Your task to perform on an android device: Open settings Image 0: 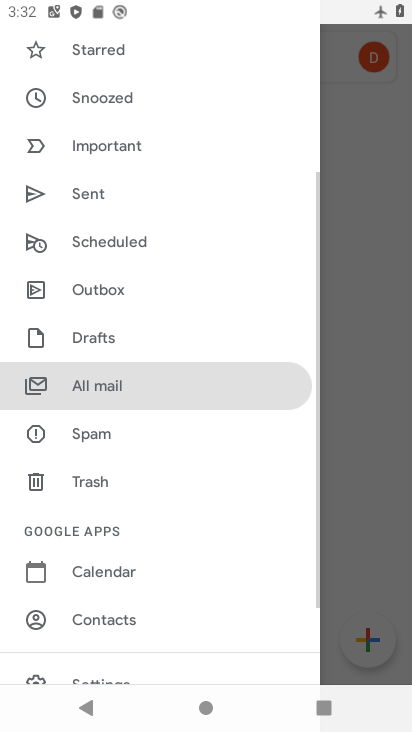
Step 0: drag from (136, 610) to (167, 417)
Your task to perform on an android device: Open settings Image 1: 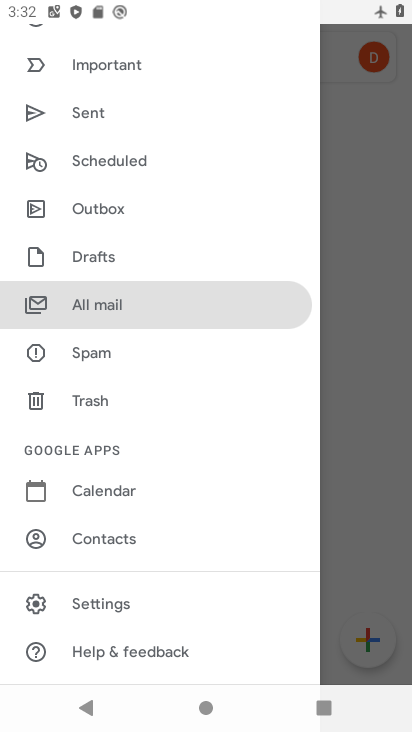
Step 1: click (128, 602)
Your task to perform on an android device: Open settings Image 2: 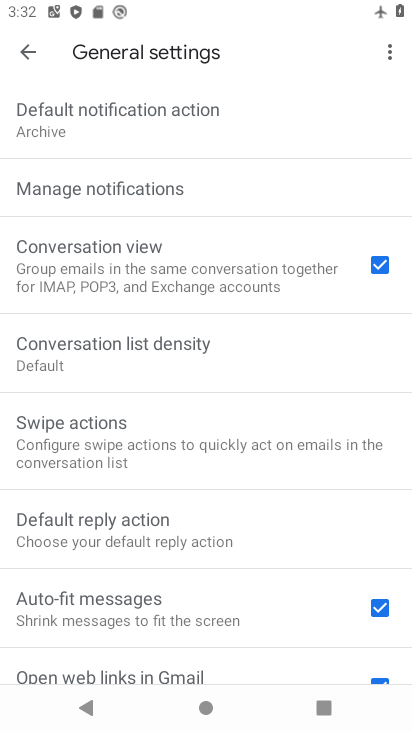
Step 2: task complete